Your task to perform on an android device: turn on showing notifications on the lock screen Image 0: 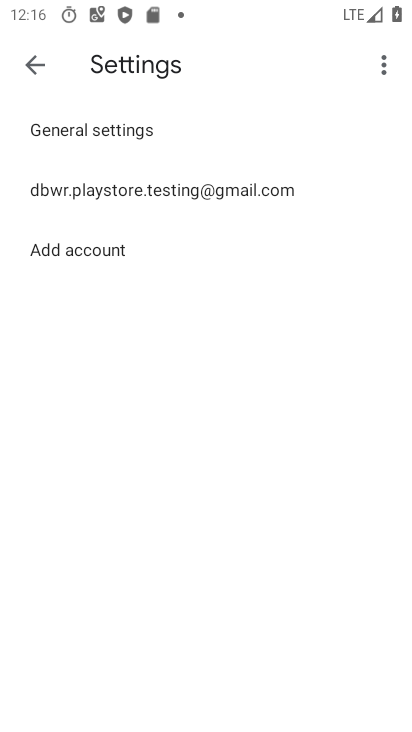
Step 0: press home button
Your task to perform on an android device: turn on showing notifications on the lock screen Image 1: 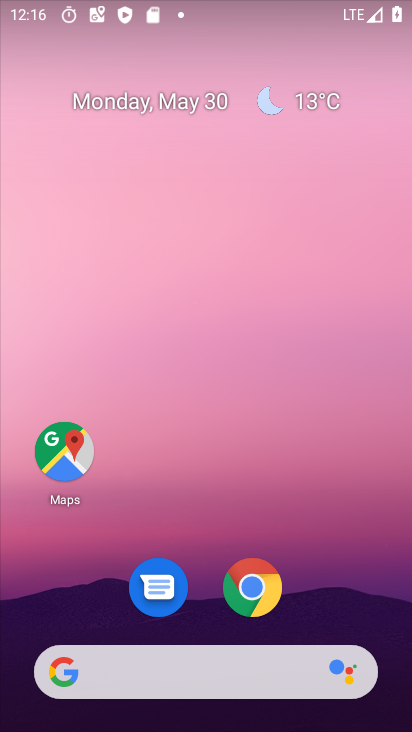
Step 1: drag from (361, 510) to (379, 119)
Your task to perform on an android device: turn on showing notifications on the lock screen Image 2: 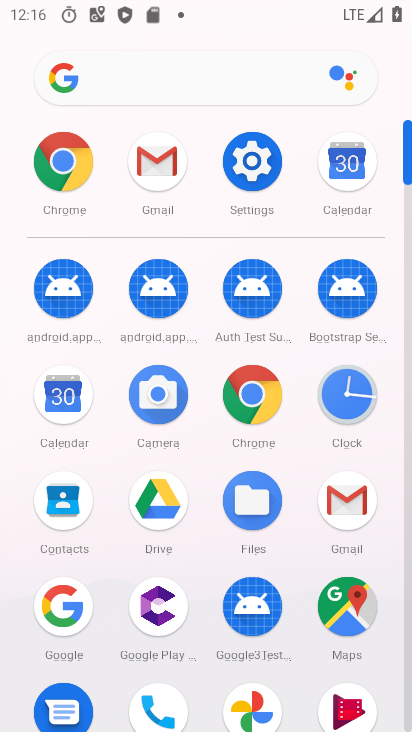
Step 2: click (258, 159)
Your task to perform on an android device: turn on showing notifications on the lock screen Image 3: 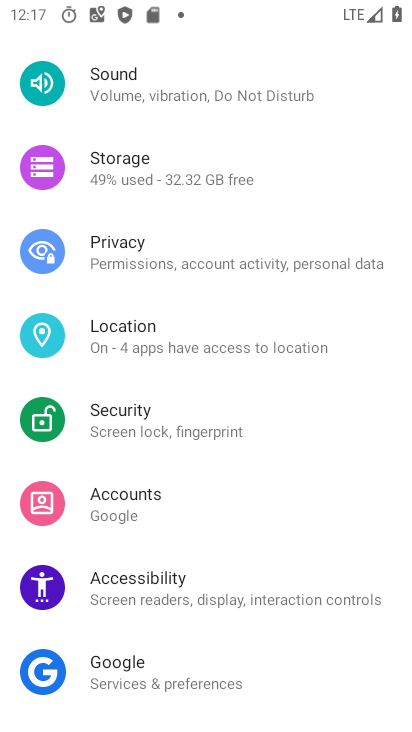
Step 3: drag from (187, 515) to (196, 727)
Your task to perform on an android device: turn on showing notifications on the lock screen Image 4: 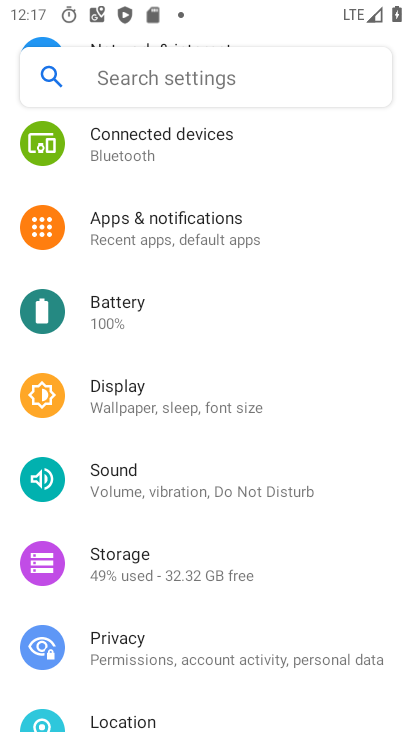
Step 4: click (191, 222)
Your task to perform on an android device: turn on showing notifications on the lock screen Image 5: 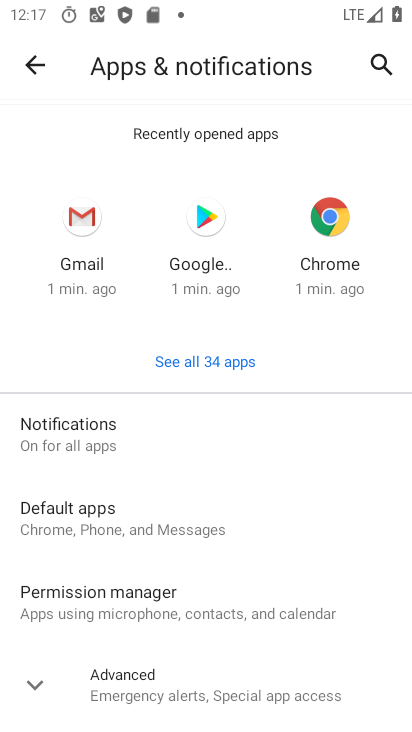
Step 5: click (130, 435)
Your task to perform on an android device: turn on showing notifications on the lock screen Image 6: 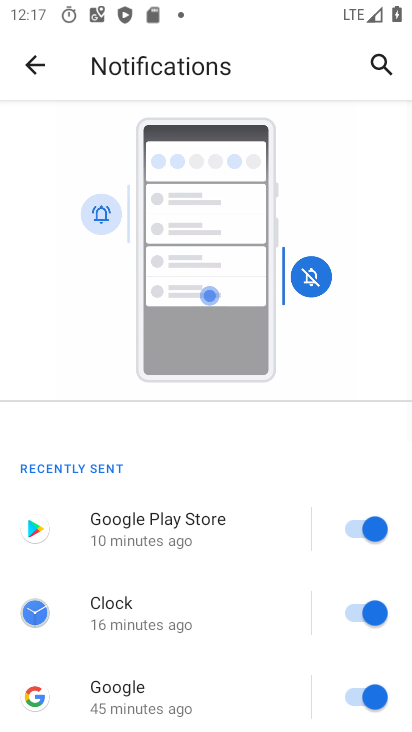
Step 6: drag from (249, 630) to (313, 53)
Your task to perform on an android device: turn on showing notifications on the lock screen Image 7: 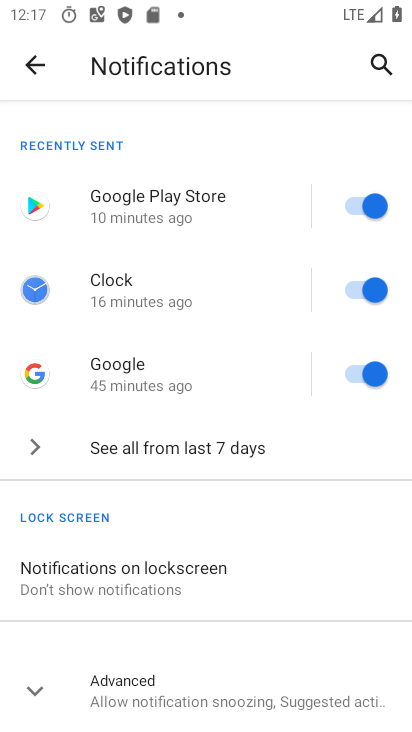
Step 7: click (185, 561)
Your task to perform on an android device: turn on showing notifications on the lock screen Image 8: 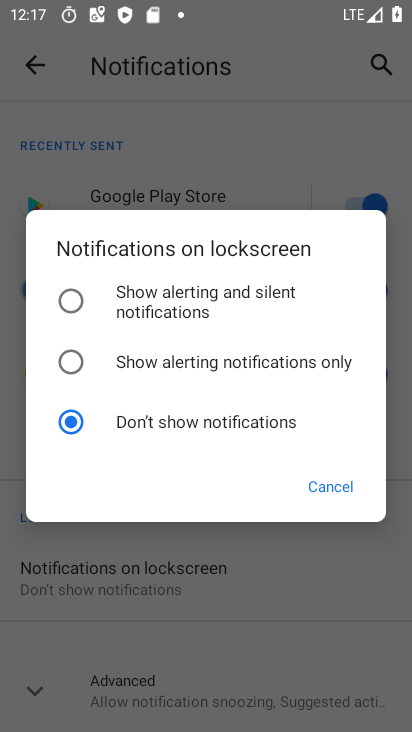
Step 8: click (218, 352)
Your task to perform on an android device: turn on showing notifications on the lock screen Image 9: 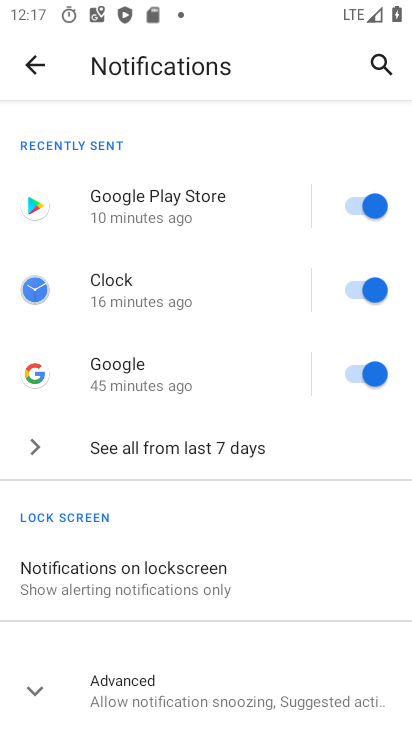
Step 9: task complete